Your task to perform on an android device: What is the news today? Image 0: 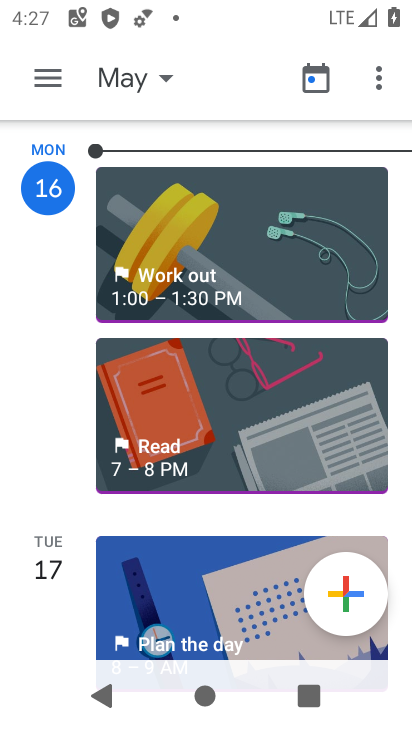
Step 0: press home button
Your task to perform on an android device: What is the news today? Image 1: 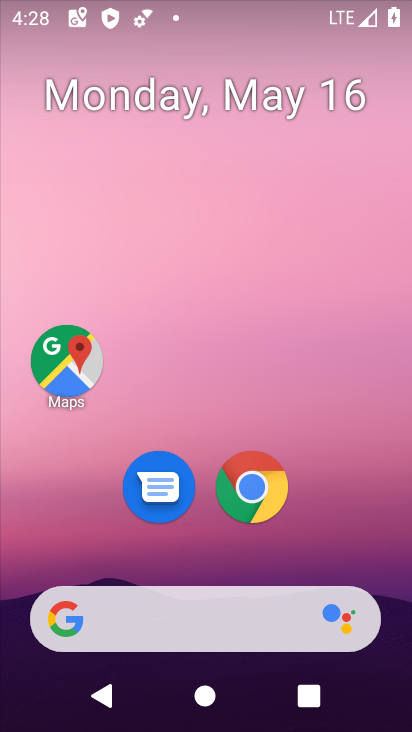
Step 1: task complete